Your task to perform on an android device: Open Chrome and go to settings Image 0: 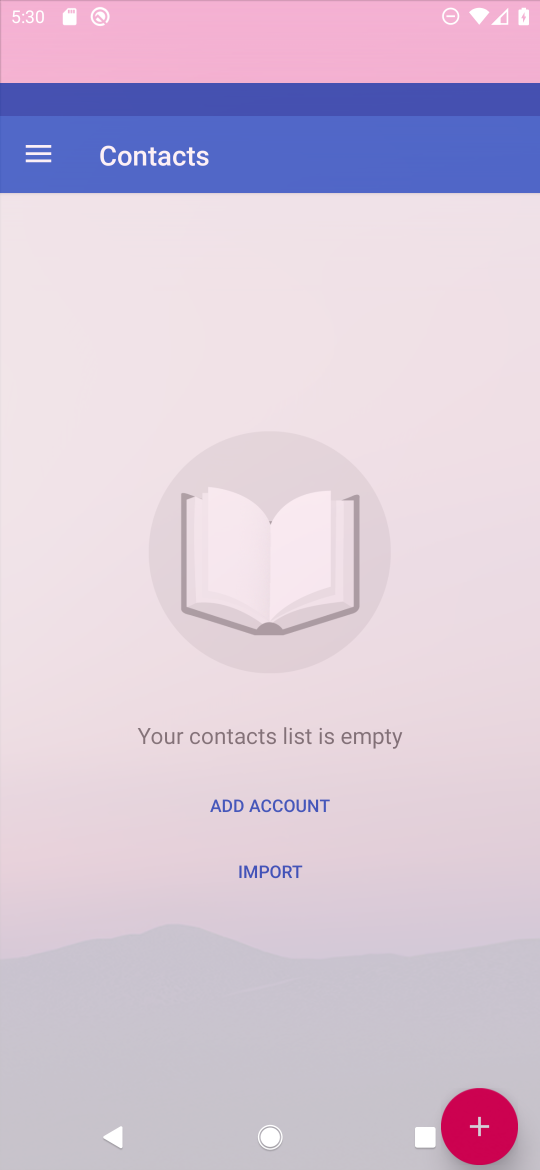
Step 0: press home button
Your task to perform on an android device: Open Chrome and go to settings Image 1: 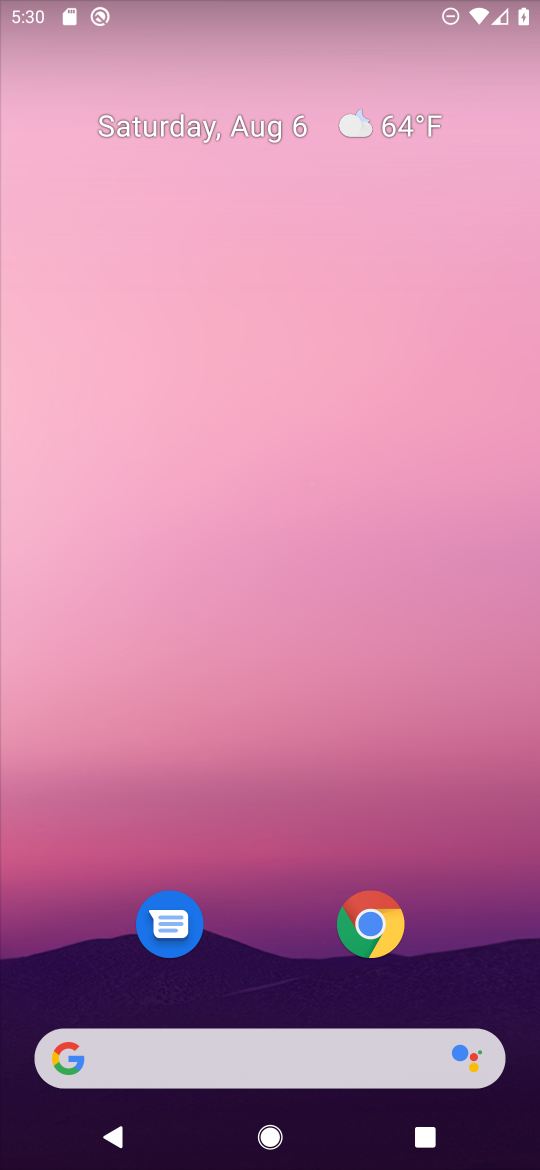
Step 1: click (367, 921)
Your task to perform on an android device: Open Chrome and go to settings Image 2: 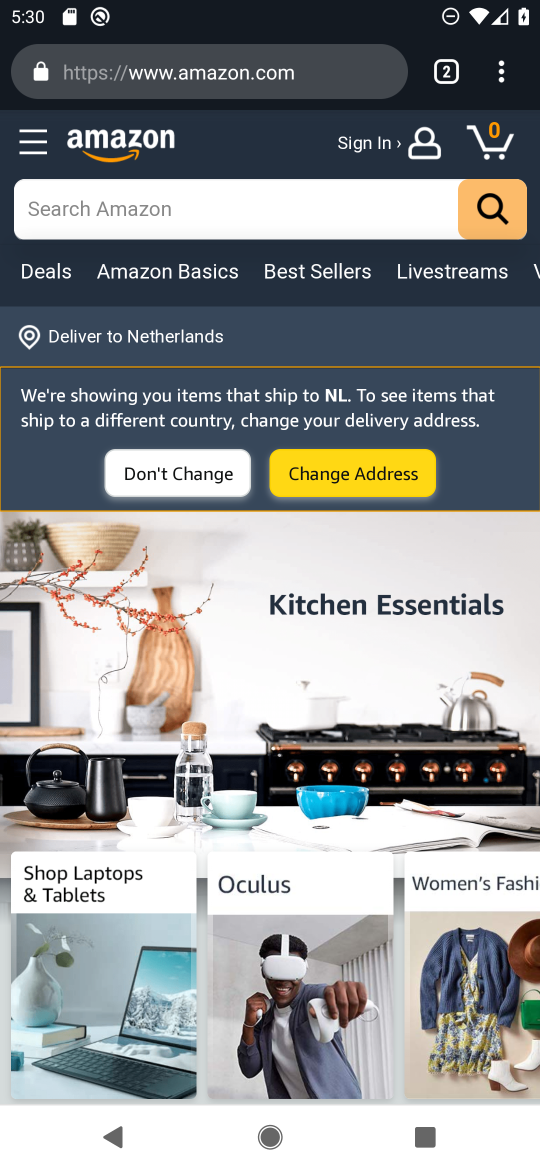
Step 2: click (497, 70)
Your task to perform on an android device: Open Chrome and go to settings Image 3: 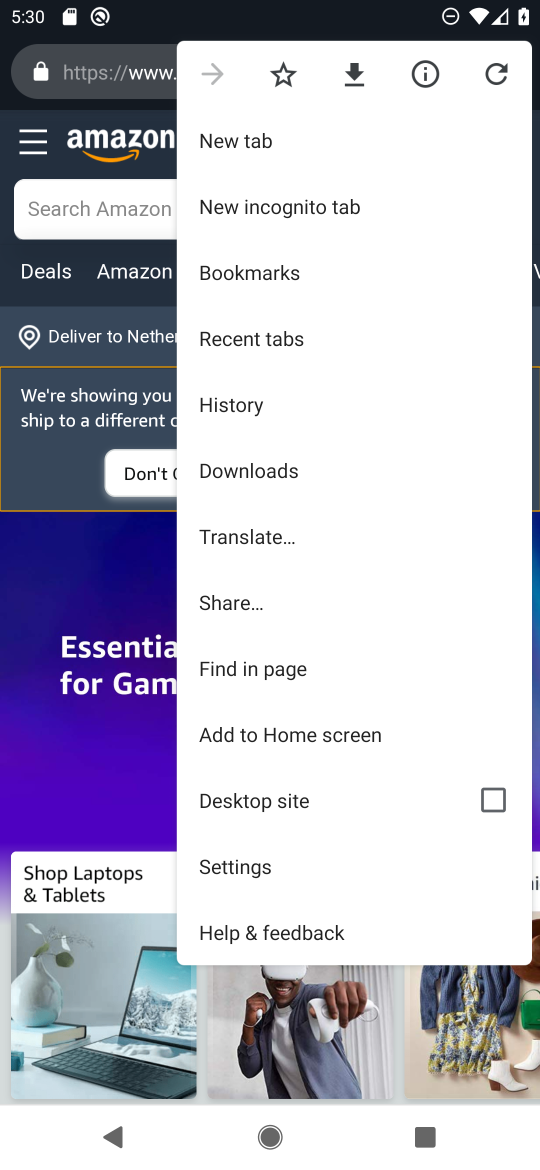
Step 3: click (248, 863)
Your task to perform on an android device: Open Chrome and go to settings Image 4: 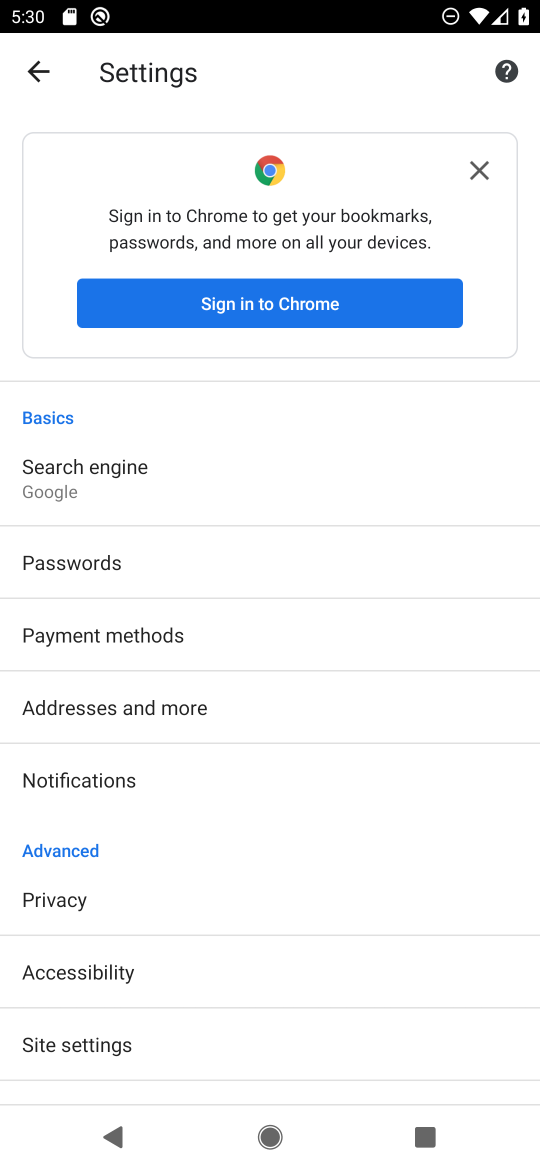
Step 4: task complete